Your task to perform on an android device: uninstall "Adobe Express: Graphic Design" Image 0: 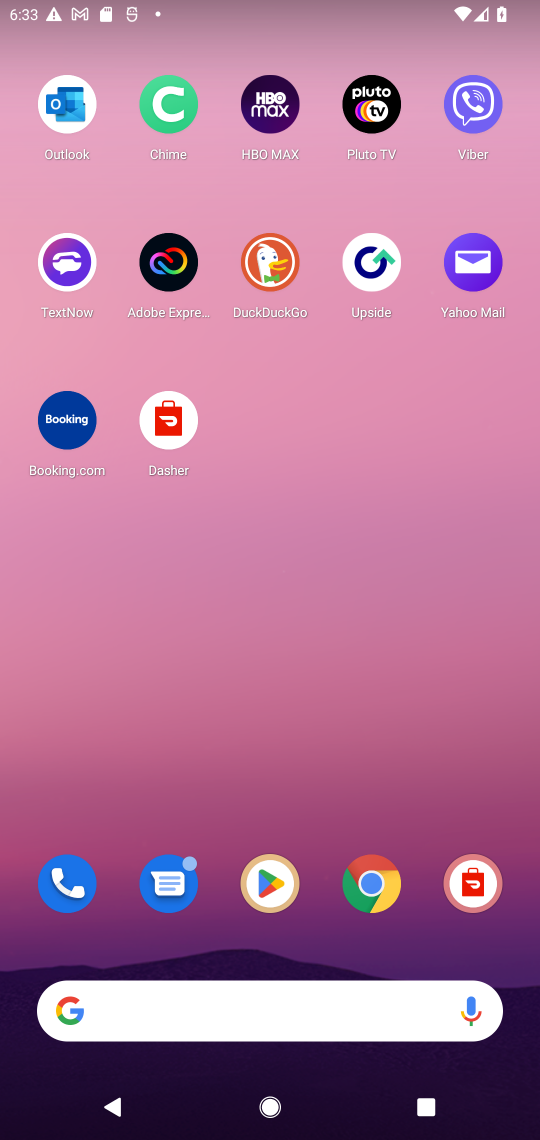
Step 0: click (283, 902)
Your task to perform on an android device: uninstall "Adobe Express: Graphic Design" Image 1: 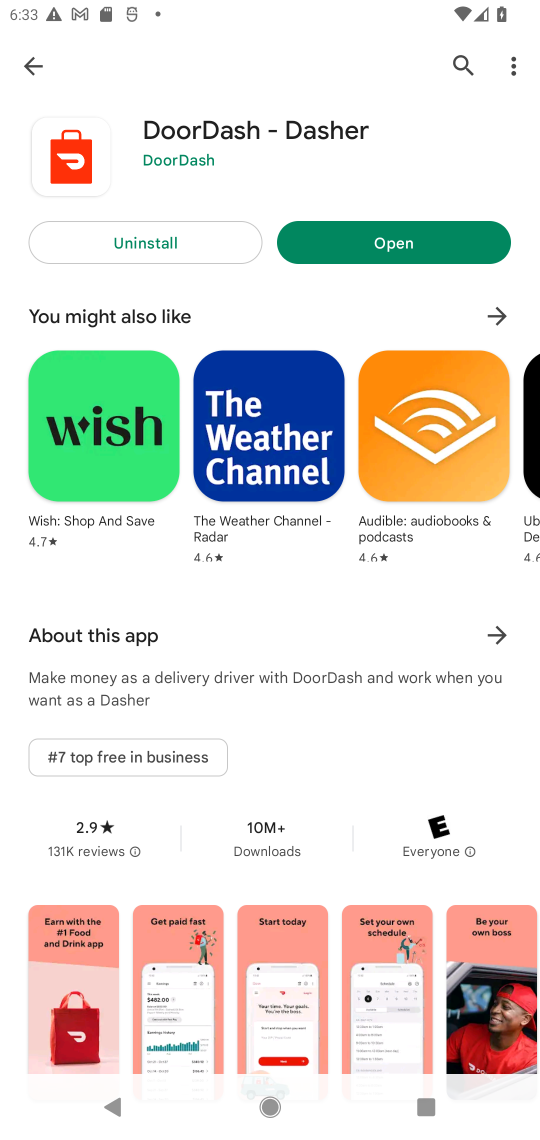
Step 1: click (460, 71)
Your task to perform on an android device: uninstall "Adobe Express: Graphic Design" Image 2: 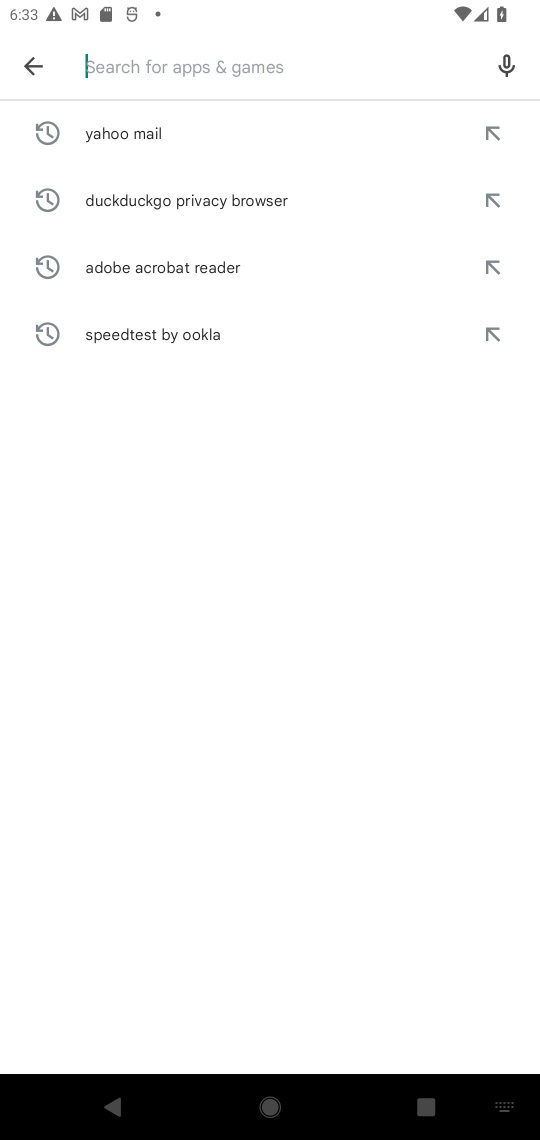
Step 2: type "Adobe Express: Graphic Design"
Your task to perform on an android device: uninstall "Adobe Express: Graphic Design" Image 3: 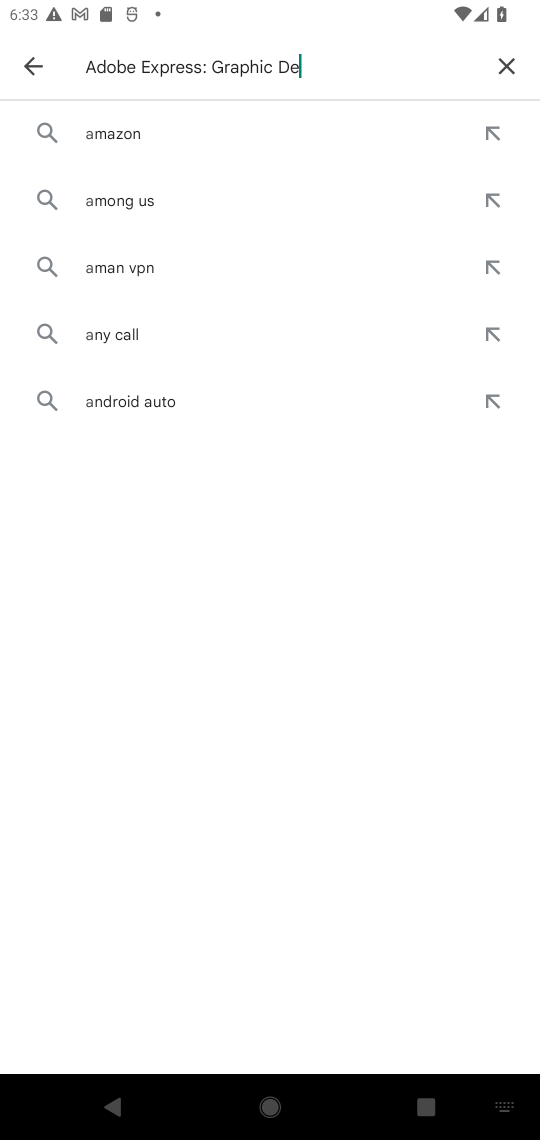
Step 3: type ""
Your task to perform on an android device: uninstall "Adobe Express: Graphic Design" Image 4: 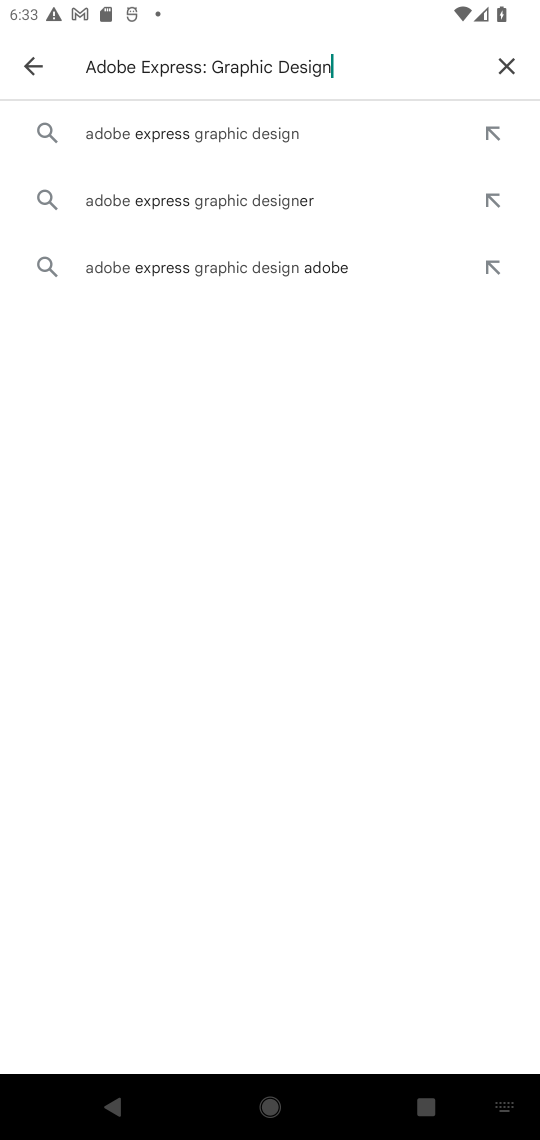
Step 4: click (280, 129)
Your task to perform on an android device: uninstall "Adobe Express: Graphic Design" Image 5: 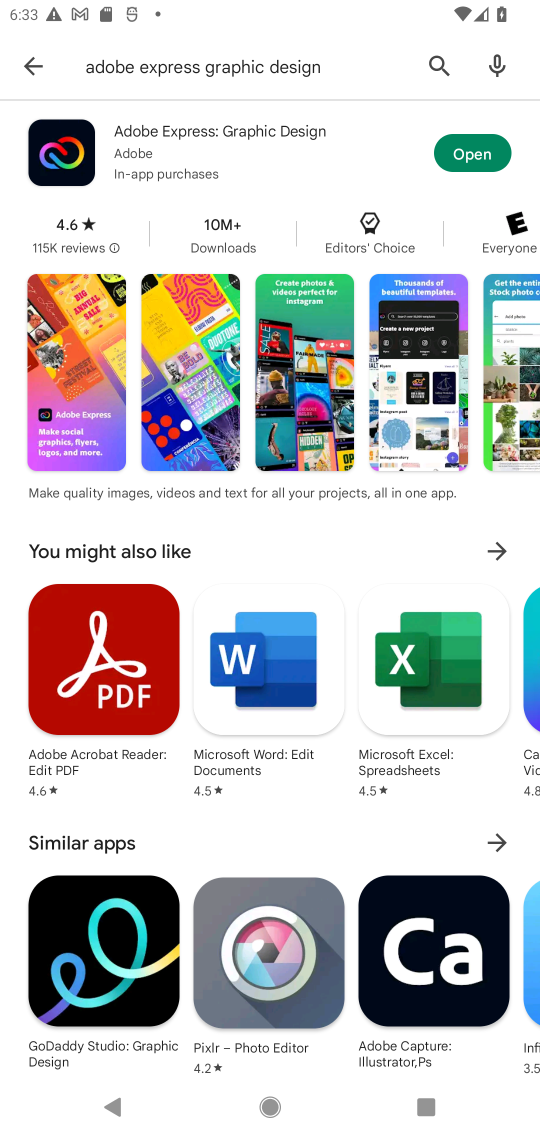
Step 5: click (190, 146)
Your task to perform on an android device: uninstall "Adobe Express: Graphic Design" Image 6: 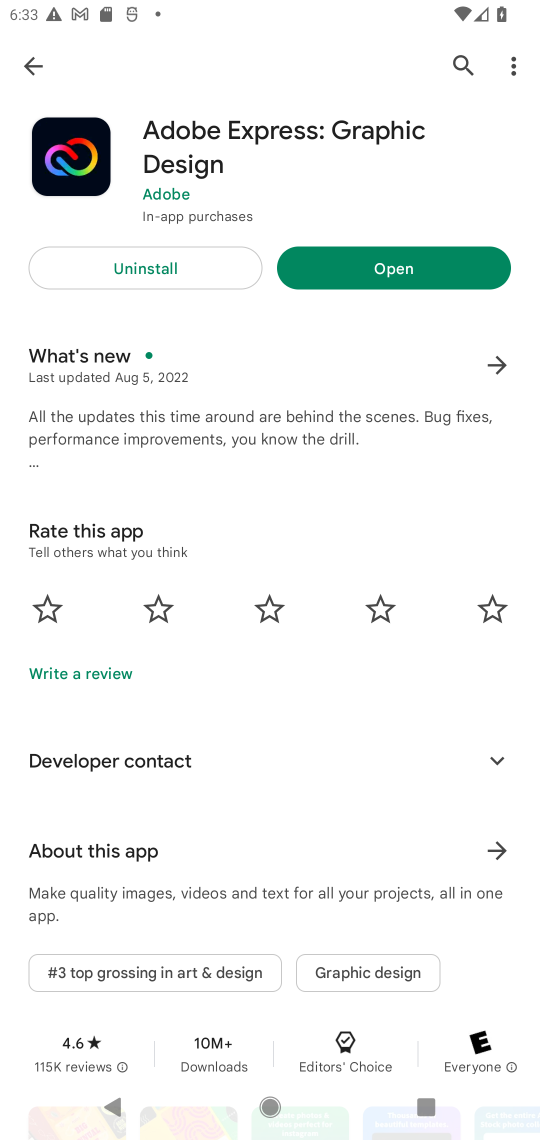
Step 6: click (181, 258)
Your task to perform on an android device: uninstall "Adobe Express: Graphic Design" Image 7: 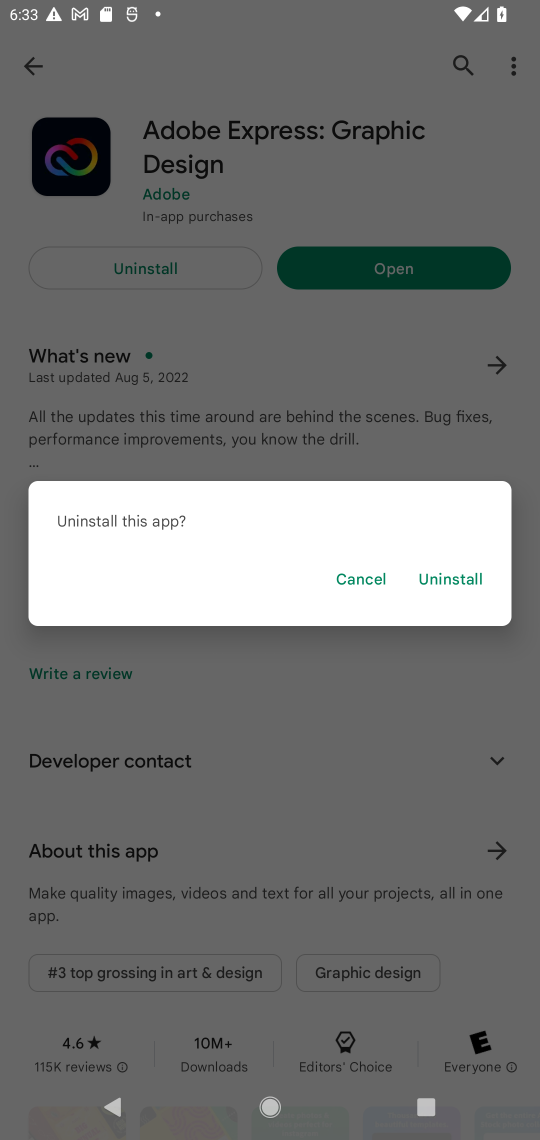
Step 7: click (457, 574)
Your task to perform on an android device: uninstall "Adobe Express: Graphic Design" Image 8: 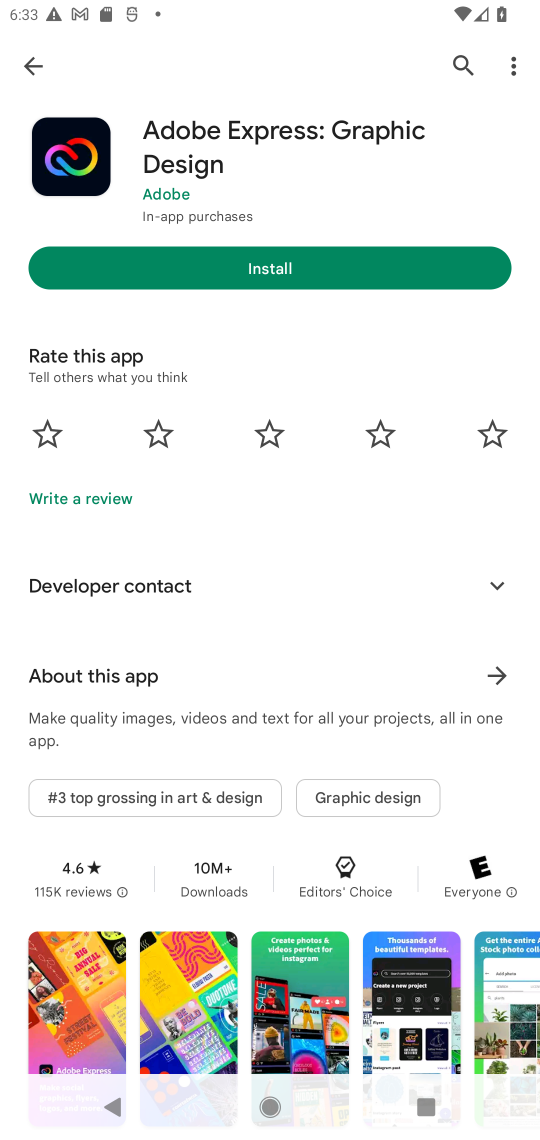
Step 8: task complete